Your task to perform on an android device: turn vacation reply on in the gmail app Image 0: 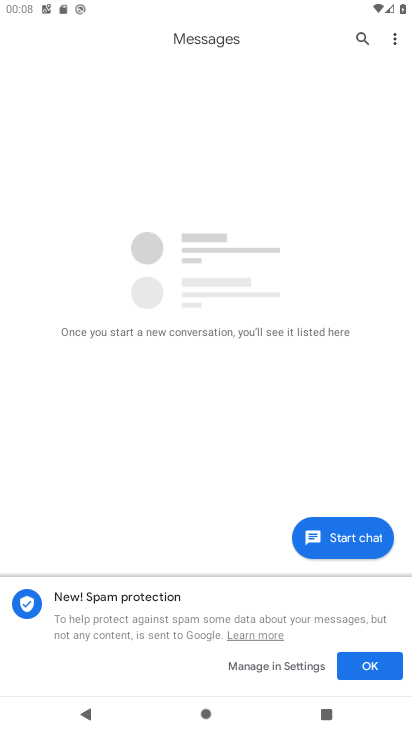
Step 0: press home button
Your task to perform on an android device: turn vacation reply on in the gmail app Image 1: 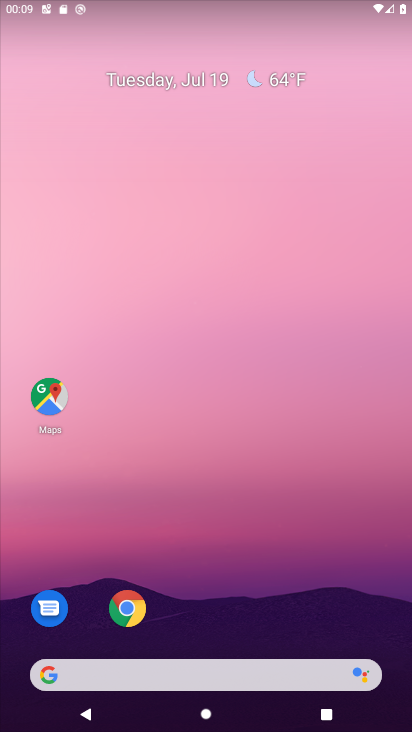
Step 1: drag from (237, 524) to (290, 24)
Your task to perform on an android device: turn vacation reply on in the gmail app Image 2: 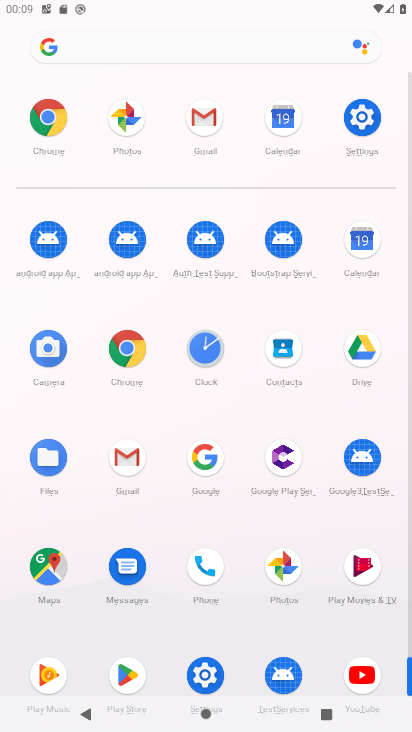
Step 2: click (130, 464)
Your task to perform on an android device: turn vacation reply on in the gmail app Image 3: 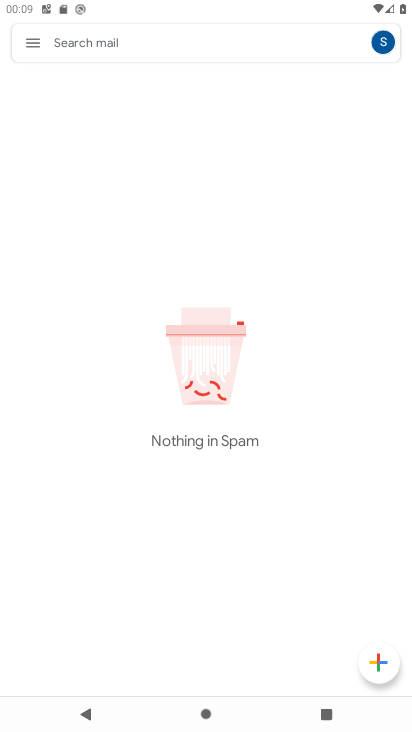
Step 3: click (33, 45)
Your task to perform on an android device: turn vacation reply on in the gmail app Image 4: 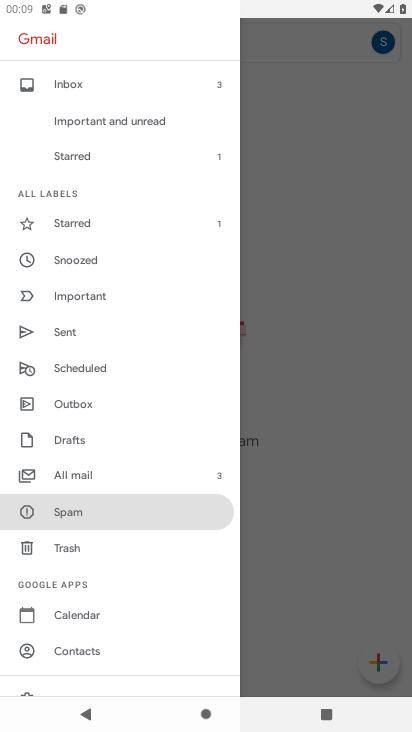
Step 4: drag from (81, 615) to (63, 236)
Your task to perform on an android device: turn vacation reply on in the gmail app Image 5: 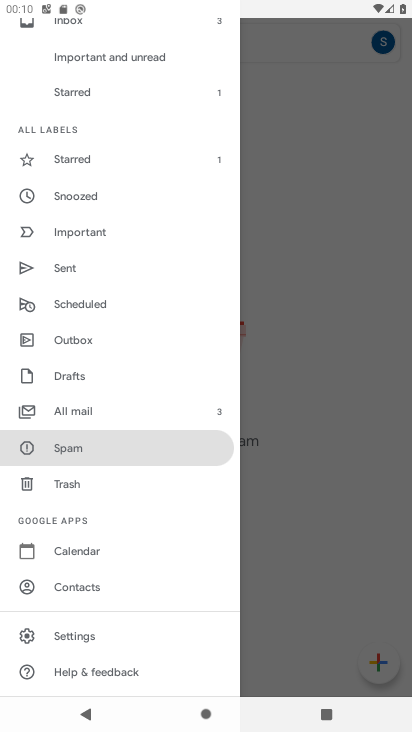
Step 5: click (111, 639)
Your task to perform on an android device: turn vacation reply on in the gmail app Image 6: 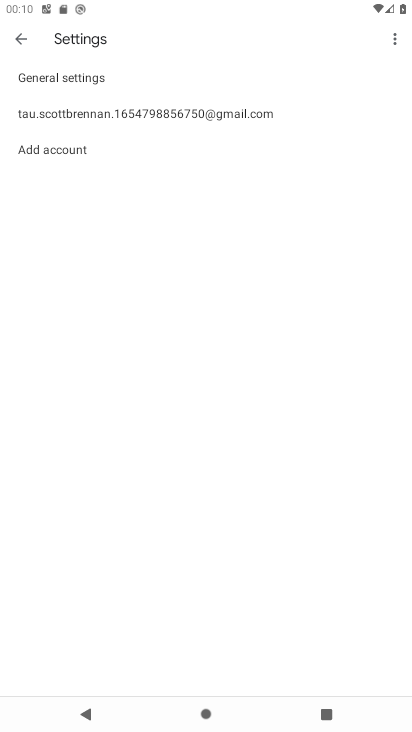
Step 6: click (99, 112)
Your task to perform on an android device: turn vacation reply on in the gmail app Image 7: 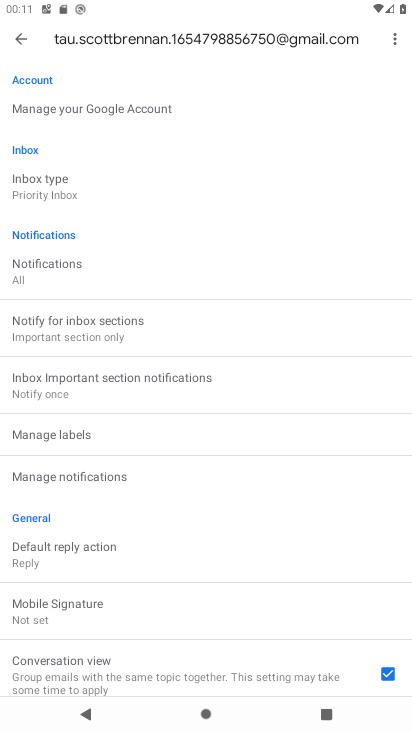
Step 7: drag from (182, 569) to (184, 252)
Your task to perform on an android device: turn vacation reply on in the gmail app Image 8: 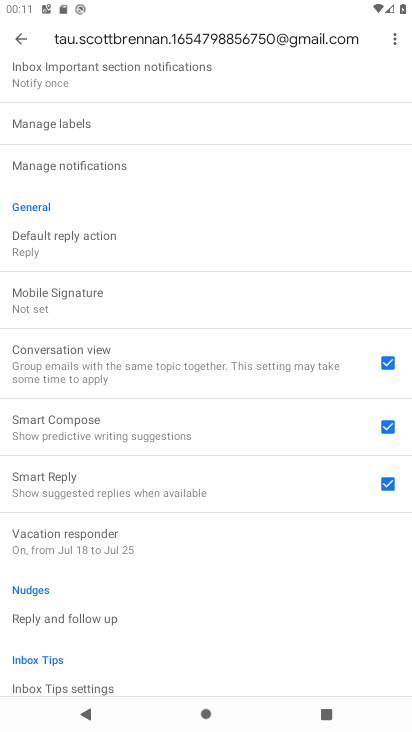
Step 8: click (140, 545)
Your task to perform on an android device: turn vacation reply on in the gmail app Image 9: 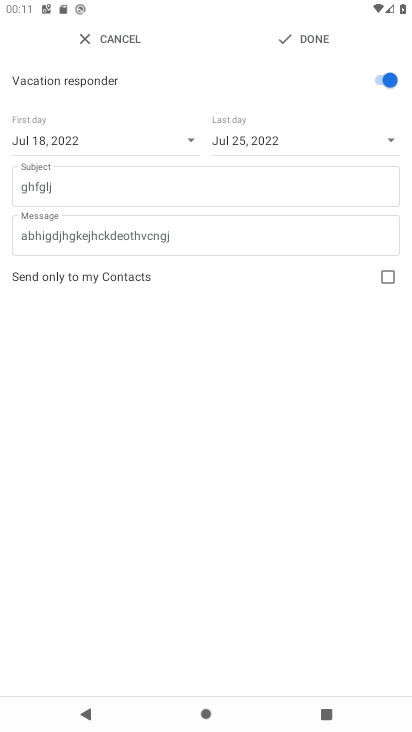
Step 9: click (300, 41)
Your task to perform on an android device: turn vacation reply on in the gmail app Image 10: 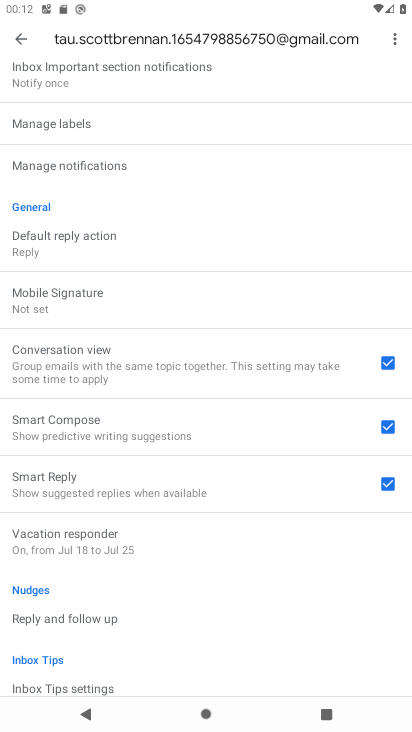
Step 10: task complete